Your task to perform on an android device: Search for Mexican restaurants on Maps Image 0: 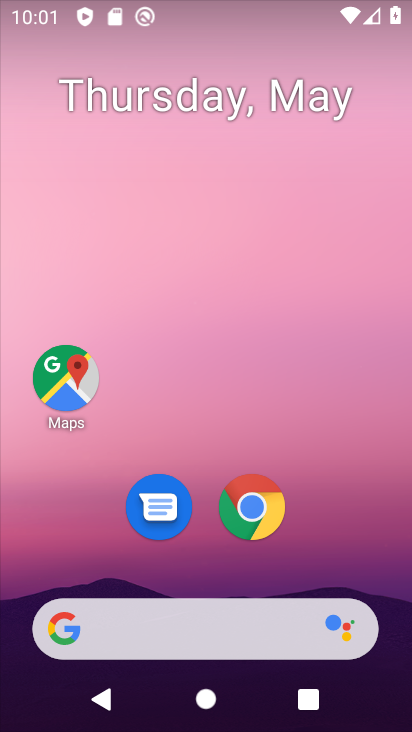
Step 0: click (86, 393)
Your task to perform on an android device: Search for Mexican restaurants on Maps Image 1: 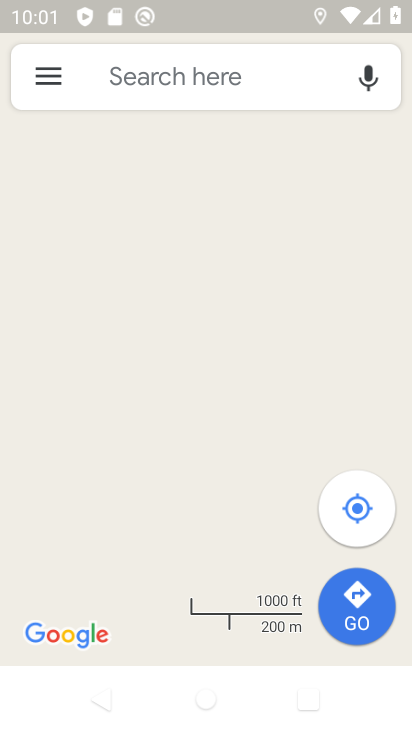
Step 1: click (182, 74)
Your task to perform on an android device: Search for Mexican restaurants on Maps Image 2: 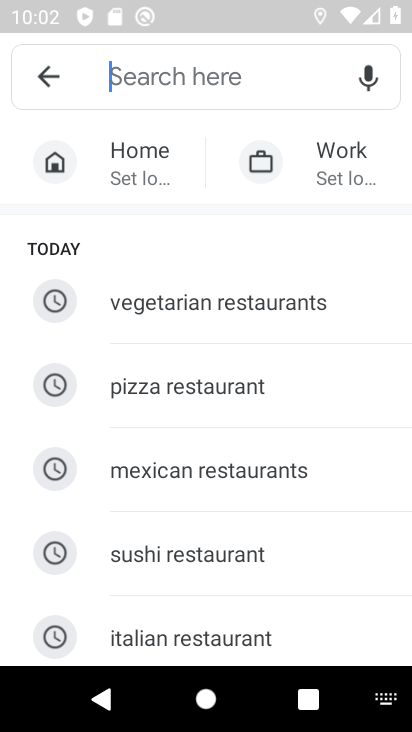
Step 2: click (294, 474)
Your task to perform on an android device: Search for Mexican restaurants on Maps Image 3: 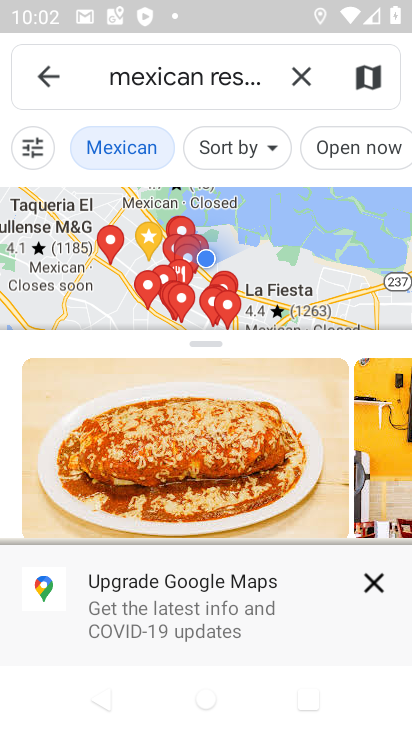
Step 3: task complete